Your task to perform on an android device: toggle priority inbox in the gmail app Image 0: 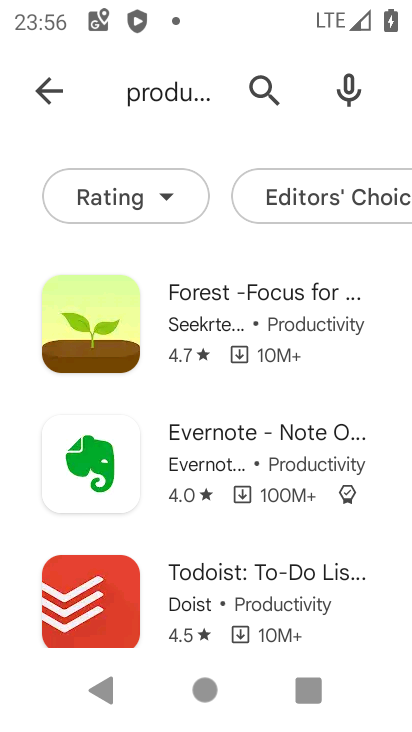
Step 0: press home button
Your task to perform on an android device: toggle priority inbox in the gmail app Image 1: 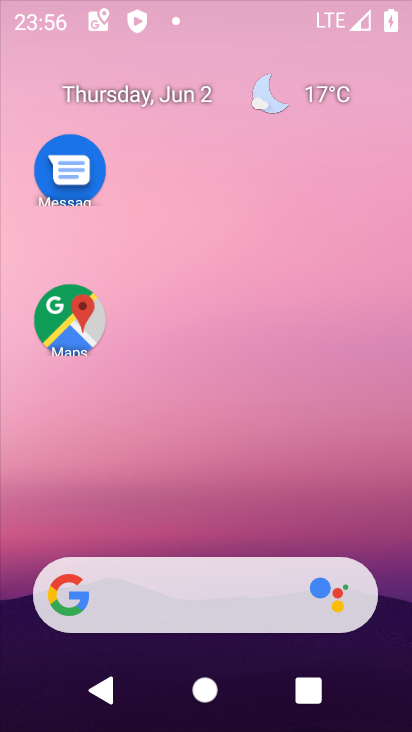
Step 1: drag from (243, 501) to (174, 232)
Your task to perform on an android device: toggle priority inbox in the gmail app Image 2: 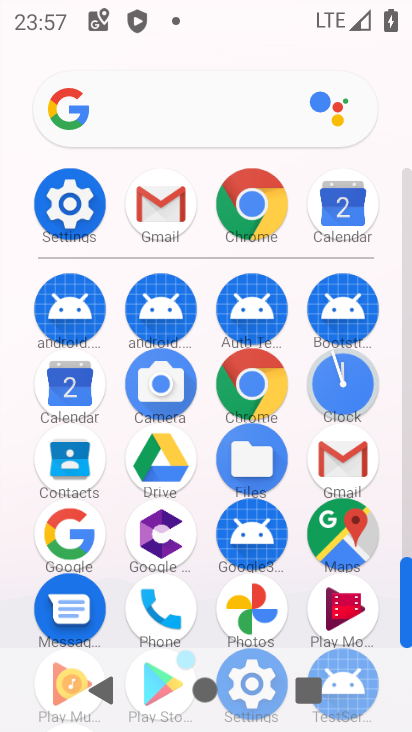
Step 2: click (376, 443)
Your task to perform on an android device: toggle priority inbox in the gmail app Image 3: 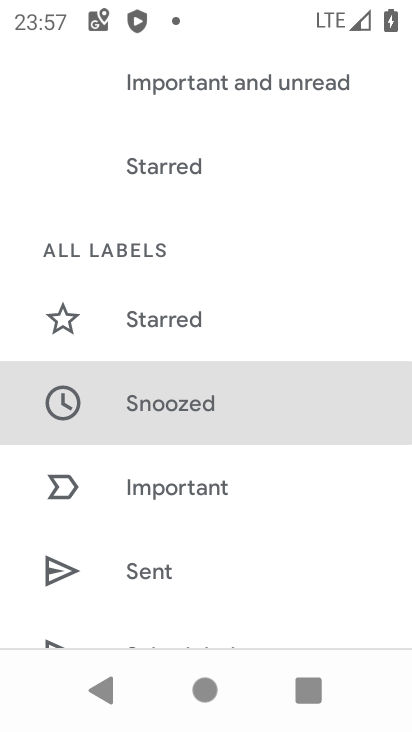
Step 3: drag from (197, 532) to (165, 0)
Your task to perform on an android device: toggle priority inbox in the gmail app Image 4: 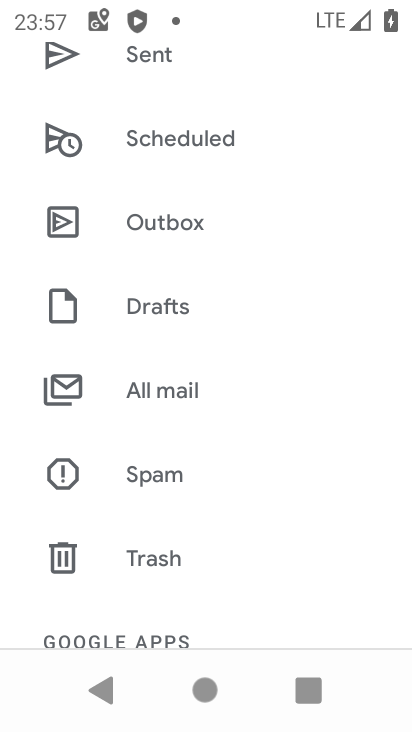
Step 4: drag from (177, 658) to (109, 124)
Your task to perform on an android device: toggle priority inbox in the gmail app Image 5: 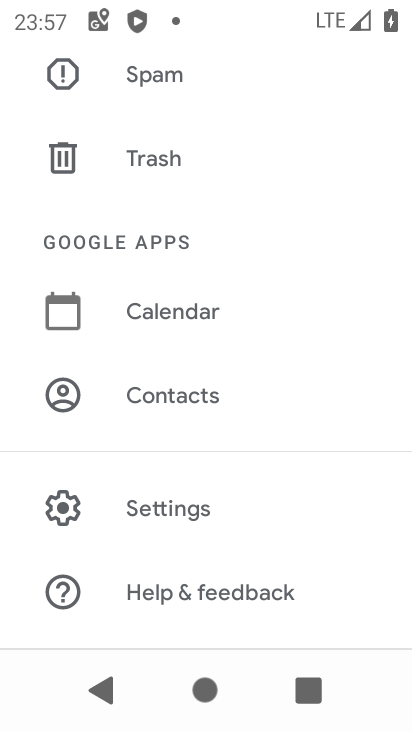
Step 5: click (171, 520)
Your task to perform on an android device: toggle priority inbox in the gmail app Image 6: 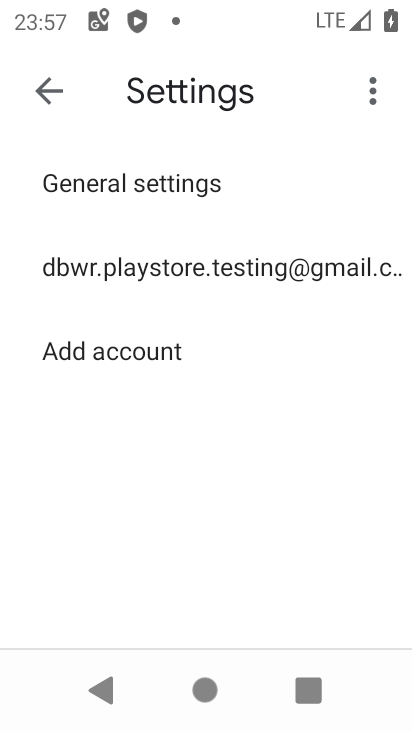
Step 6: click (148, 247)
Your task to perform on an android device: toggle priority inbox in the gmail app Image 7: 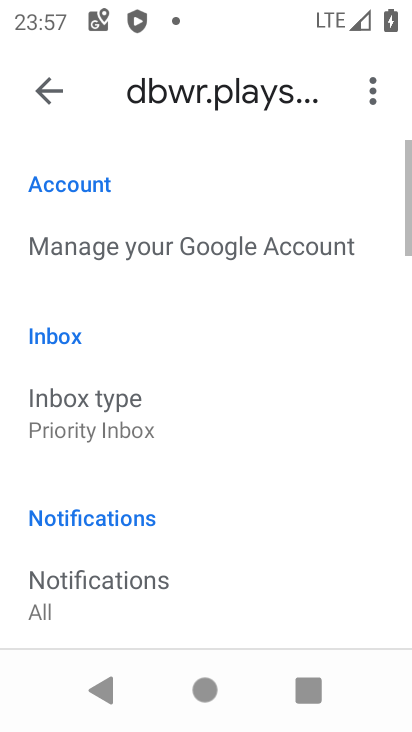
Step 7: drag from (165, 560) to (138, 348)
Your task to perform on an android device: toggle priority inbox in the gmail app Image 8: 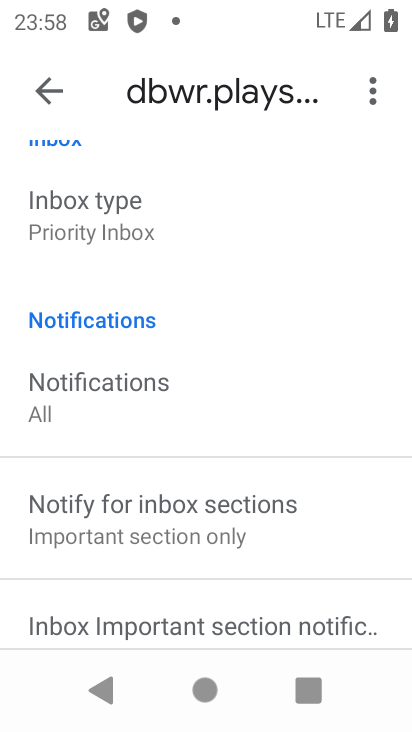
Step 8: click (118, 238)
Your task to perform on an android device: toggle priority inbox in the gmail app Image 9: 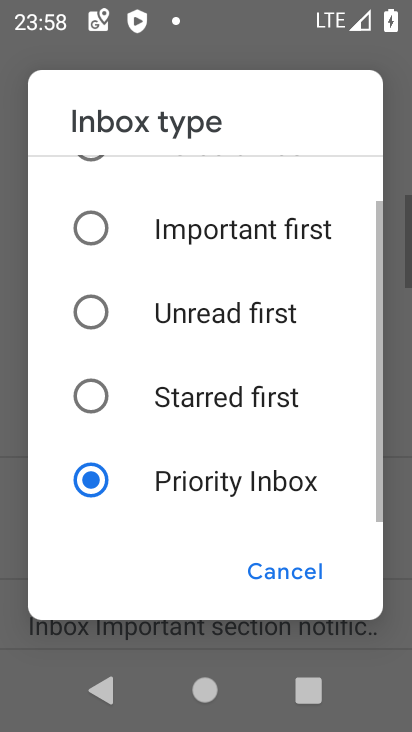
Step 9: drag from (138, 202) to (204, 595)
Your task to perform on an android device: toggle priority inbox in the gmail app Image 10: 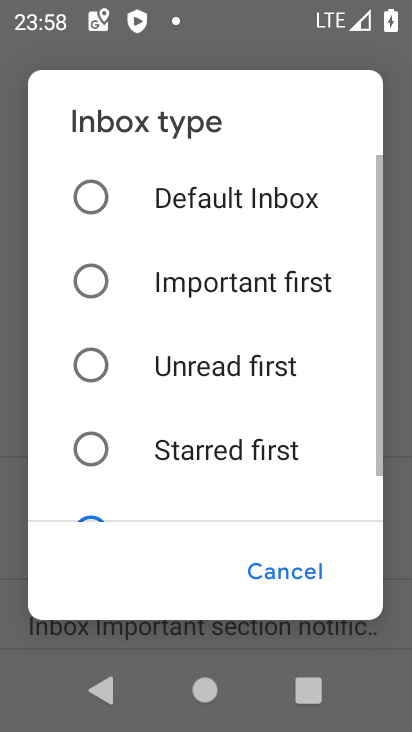
Step 10: click (181, 214)
Your task to perform on an android device: toggle priority inbox in the gmail app Image 11: 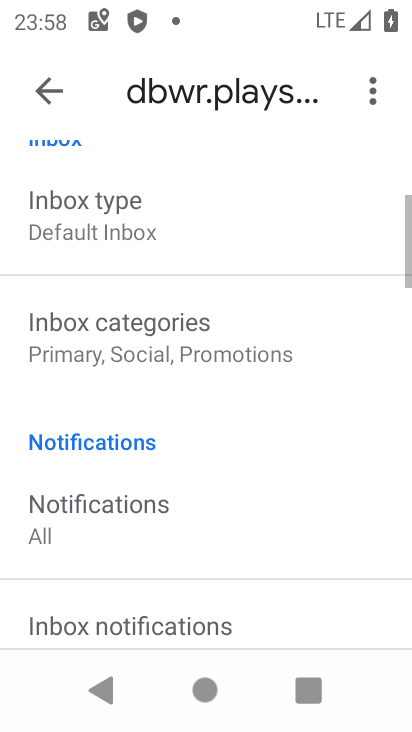
Step 11: task complete